Your task to perform on an android device: open the mobile data screen to see how much data has been used Image 0: 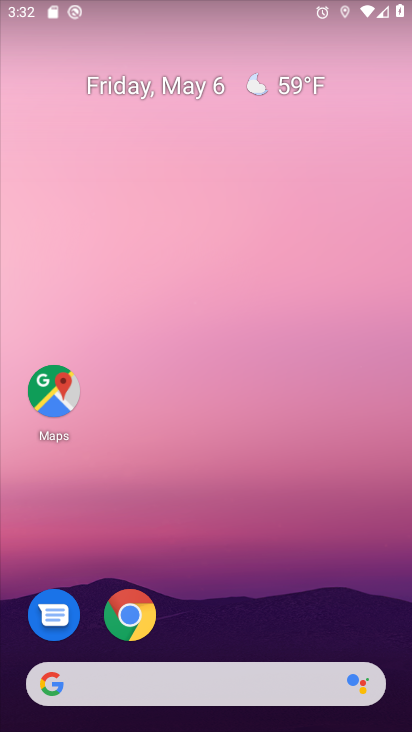
Step 0: drag from (341, 640) to (331, 66)
Your task to perform on an android device: open the mobile data screen to see how much data has been used Image 1: 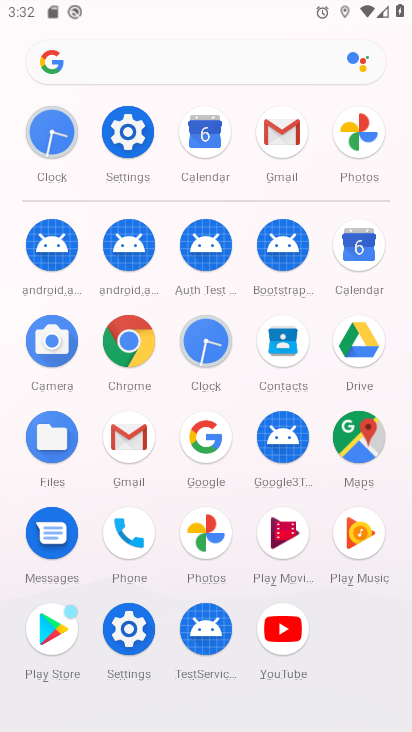
Step 1: click (132, 135)
Your task to perform on an android device: open the mobile data screen to see how much data has been used Image 2: 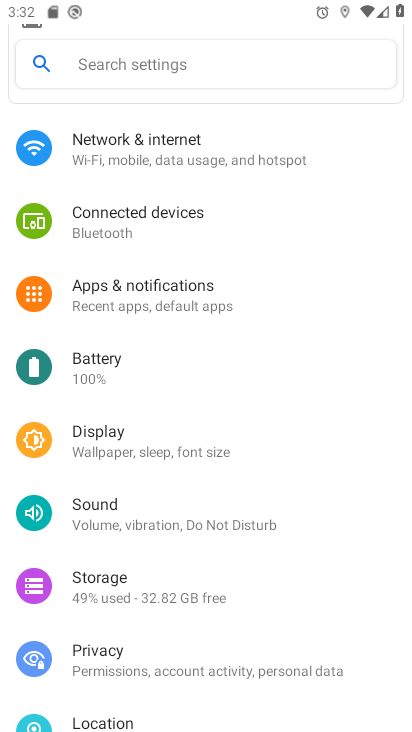
Step 2: click (137, 159)
Your task to perform on an android device: open the mobile data screen to see how much data has been used Image 3: 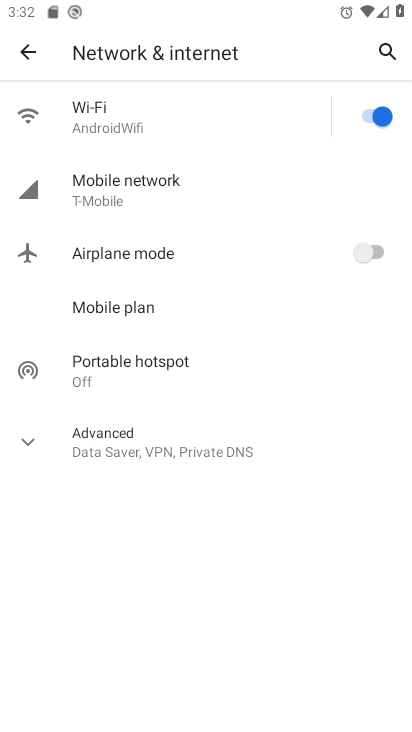
Step 3: click (102, 184)
Your task to perform on an android device: open the mobile data screen to see how much data has been used Image 4: 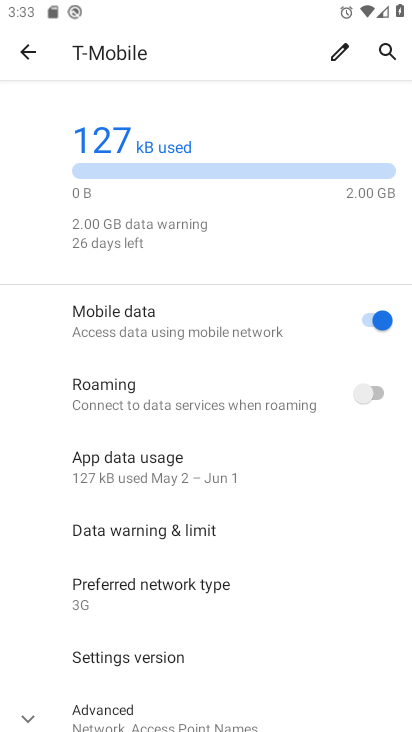
Step 4: drag from (278, 472) to (280, 260)
Your task to perform on an android device: open the mobile data screen to see how much data has been used Image 5: 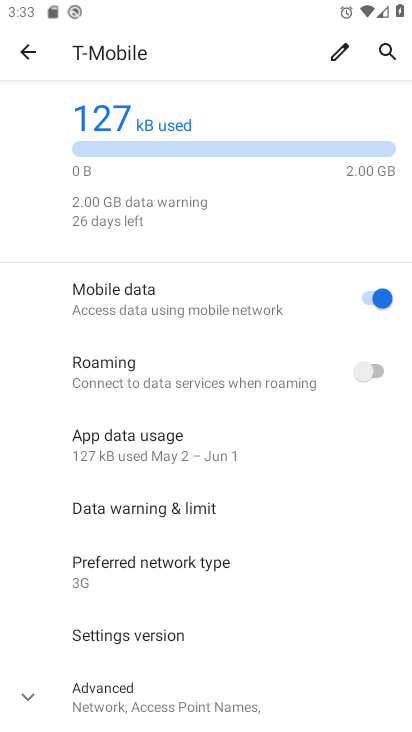
Step 5: click (123, 513)
Your task to perform on an android device: open the mobile data screen to see how much data has been used Image 6: 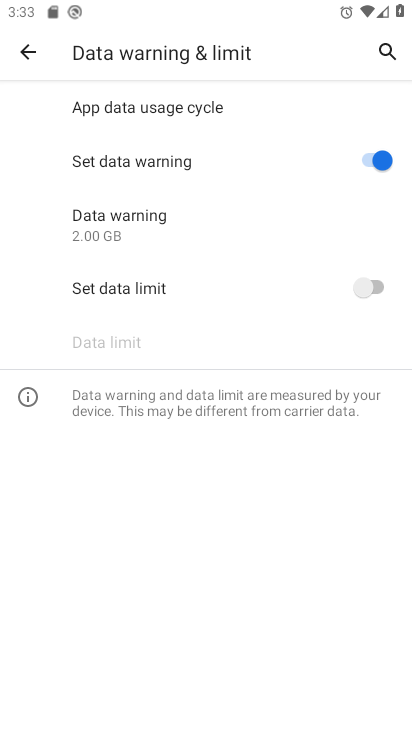
Step 6: click (28, 48)
Your task to perform on an android device: open the mobile data screen to see how much data has been used Image 7: 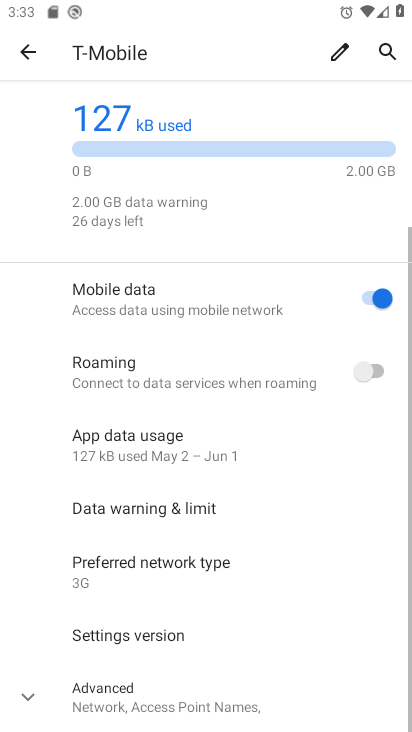
Step 7: click (148, 440)
Your task to perform on an android device: open the mobile data screen to see how much data has been used Image 8: 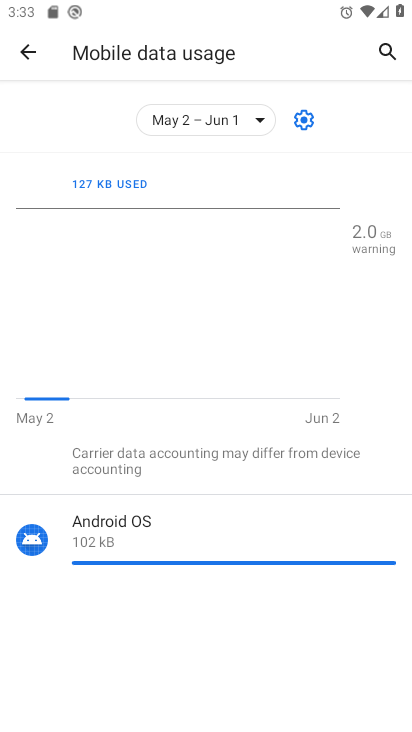
Step 8: task complete